Your task to perform on an android device: turn on improve location accuracy Image 0: 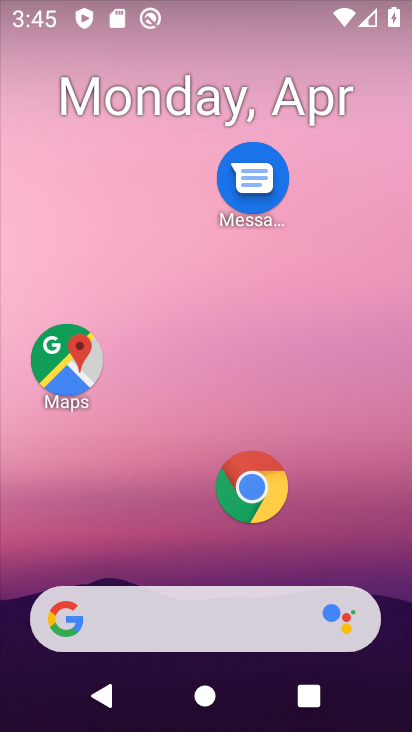
Step 0: drag from (159, 549) to (237, 4)
Your task to perform on an android device: turn on improve location accuracy Image 1: 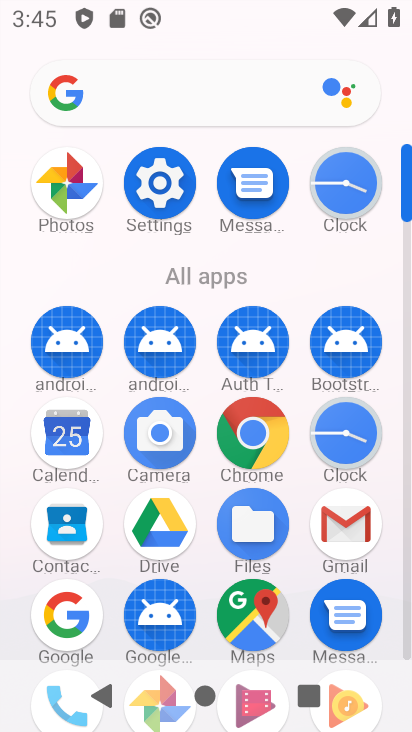
Step 1: click (164, 215)
Your task to perform on an android device: turn on improve location accuracy Image 2: 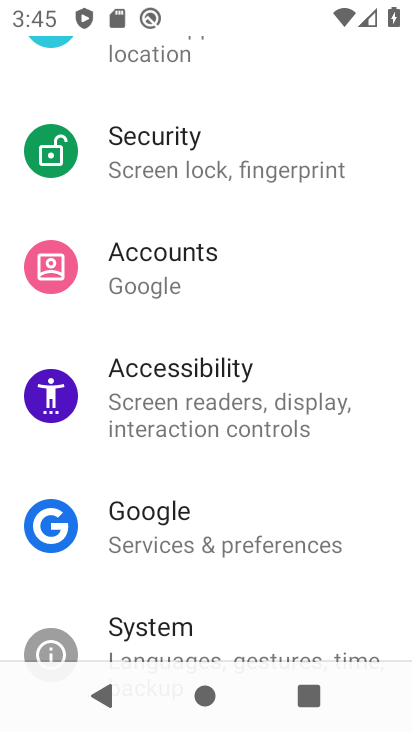
Step 2: drag from (238, 166) to (229, 371)
Your task to perform on an android device: turn on improve location accuracy Image 3: 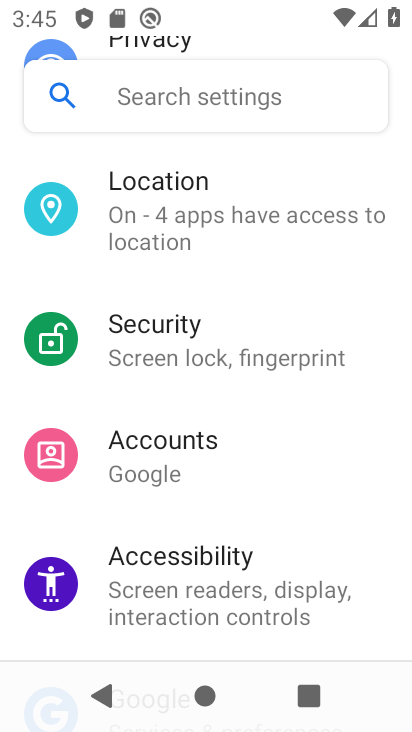
Step 3: click (177, 251)
Your task to perform on an android device: turn on improve location accuracy Image 4: 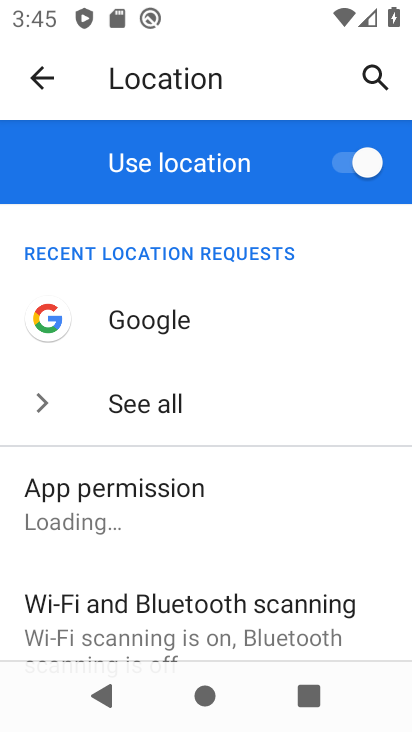
Step 4: drag from (211, 548) to (269, 262)
Your task to perform on an android device: turn on improve location accuracy Image 5: 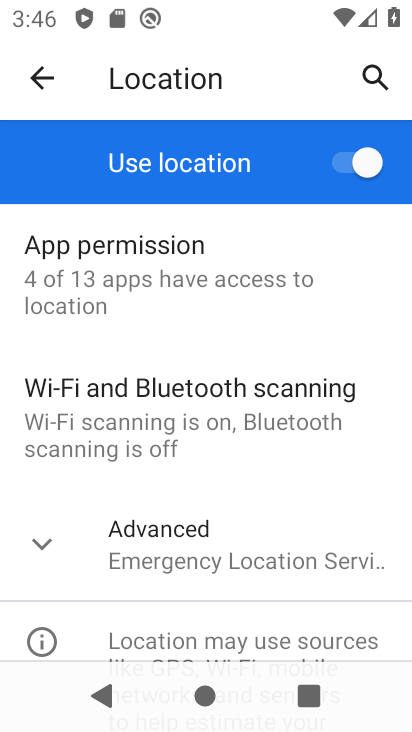
Step 5: click (172, 539)
Your task to perform on an android device: turn on improve location accuracy Image 6: 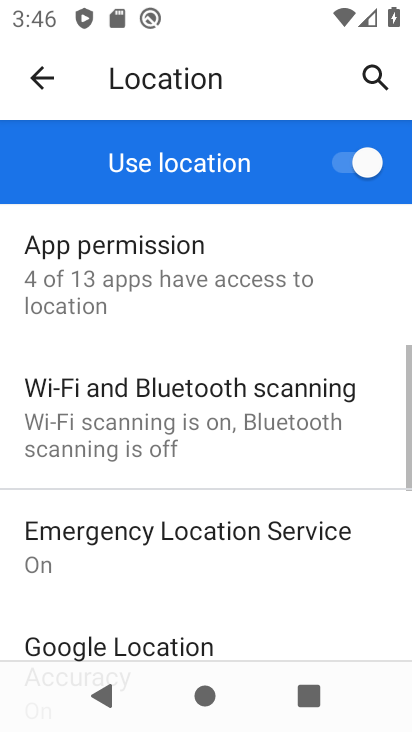
Step 6: drag from (191, 531) to (252, 272)
Your task to perform on an android device: turn on improve location accuracy Image 7: 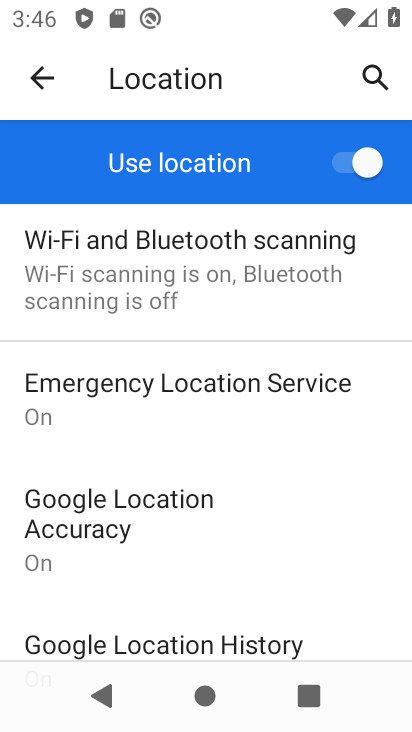
Step 7: click (177, 532)
Your task to perform on an android device: turn on improve location accuracy Image 8: 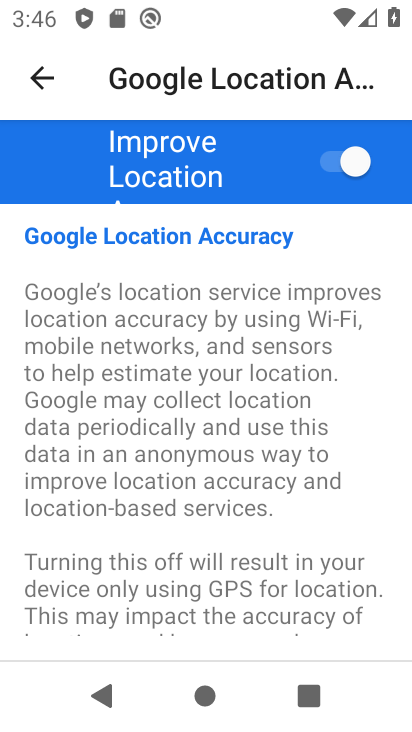
Step 8: task complete